Your task to perform on an android device: Do I have any events this weekend? Image 0: 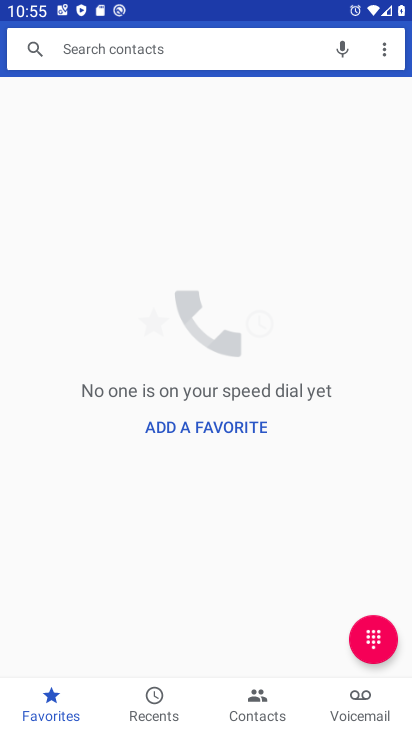
Step 0: press home button
Your task to perform on an android device: Do I have any events this weekend? Image 1: 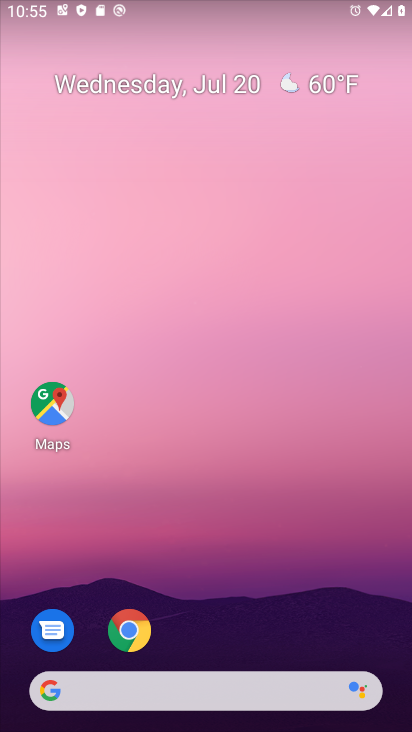
Step 1: drag from (212, 726) to (201, 125)
Your task to perform on an android device: Do I have any events this weekend? Image 2: 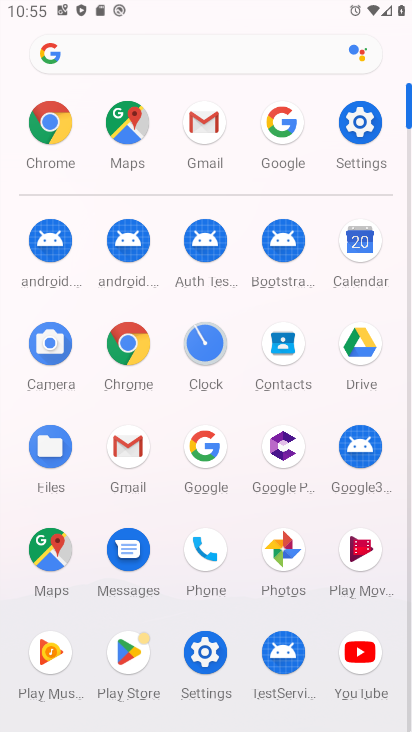
Step 2: click (360, 239)
Your task to perform on an android device: Do I have any events this weekend? Image 3: 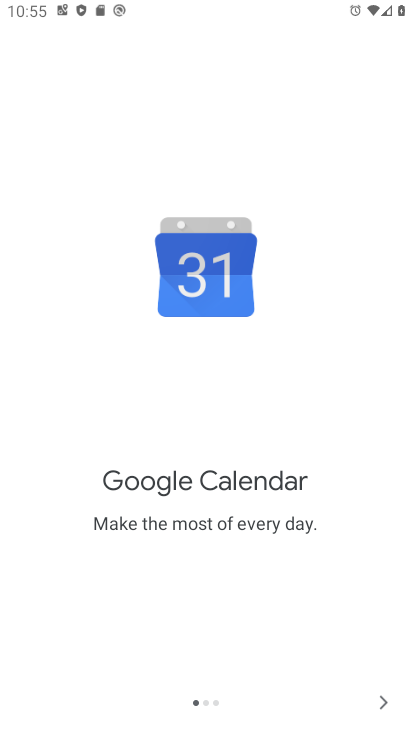
Step 3: click (386, 705)
Your task to perform on an android device: Do I have any events this weekend? Image 4: 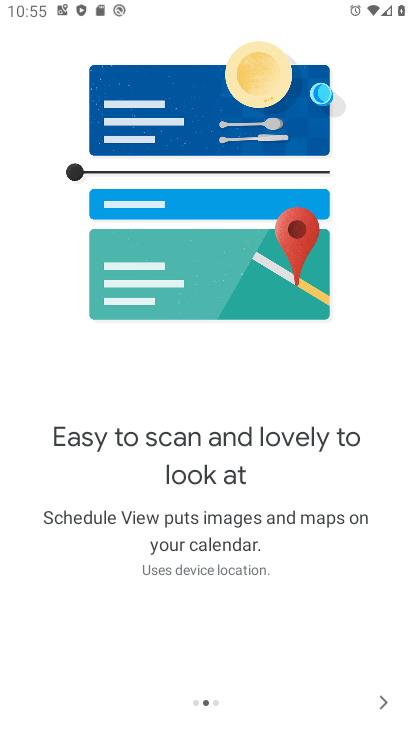
Step 4: click (381, 699)
Your task to perform on an android device: Do I have any events this weekend? Image 5: 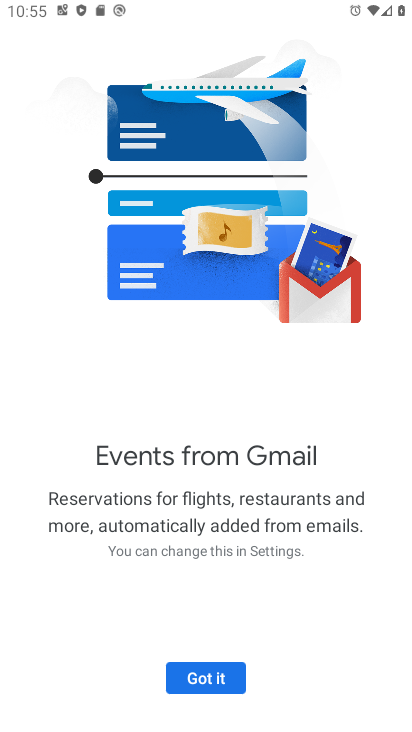
Step 5: click (213, 680)
Your task to perform on an android device: Do I have any events this weekend? Image 6: 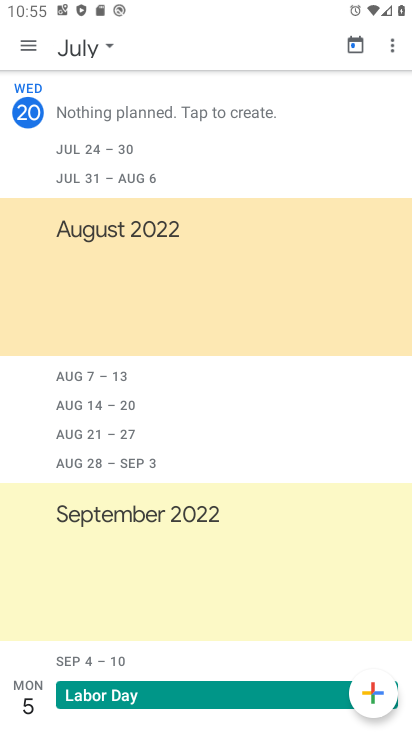
Step 6: click (32, 45)
Your task to perform on an android device: Do I have any events this weekend? Image 7: 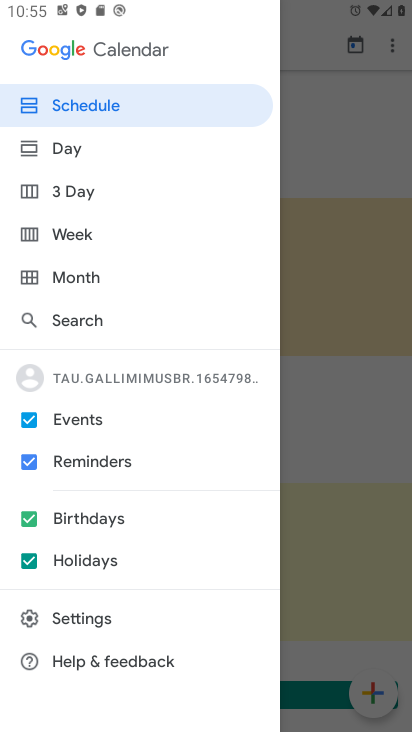
Step 7: click (34, 565)
Your task to perform on an android device: Do I have any events this weekend? Image 8: 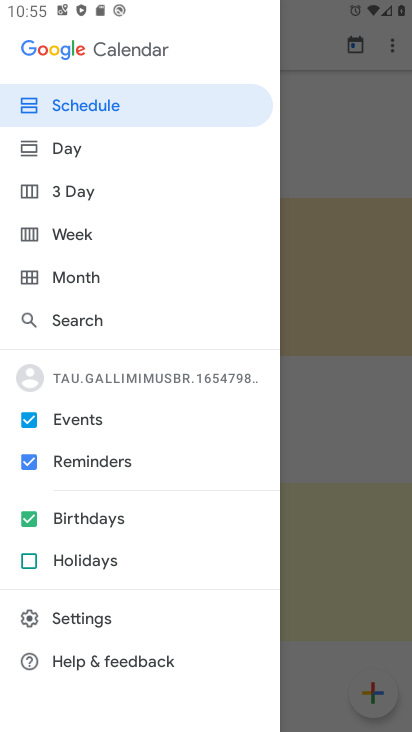
Step 8: click (23, 517)
Your task to perform on an android device: Do I have any events this weekend? Image 9: 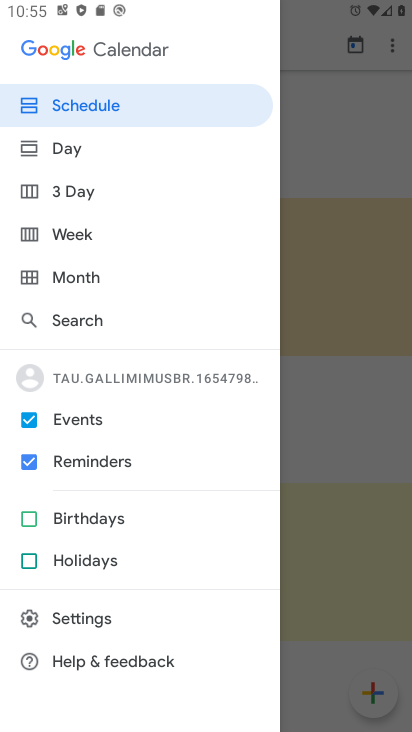
Step 9: click (35, 457)
Your task to perform on an android device: Do I have any events this weekend? Image 10: 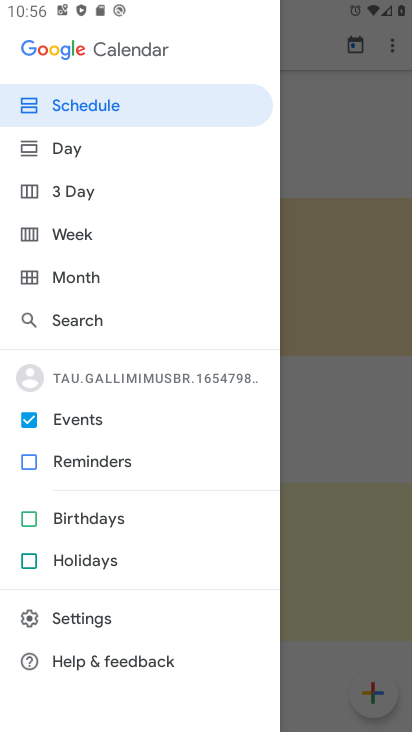
Step 10: click (76, 233)
Your task to perform on an android device: Do I have any events this weekend? Image 11: 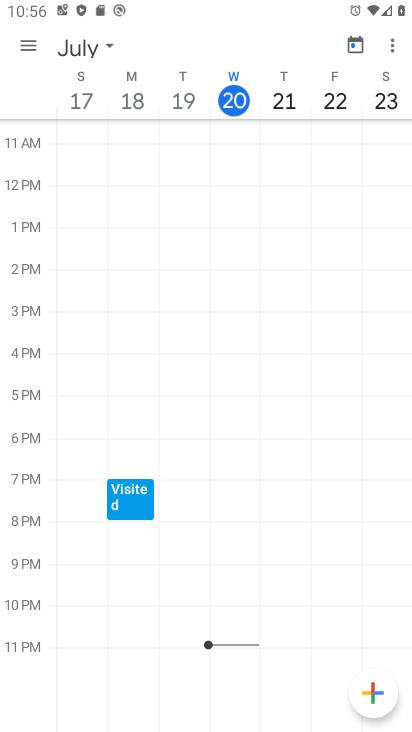
Step 11: click (382, 94)
Your task to perform on an android device: Do I have any events this weekend? Image 12: 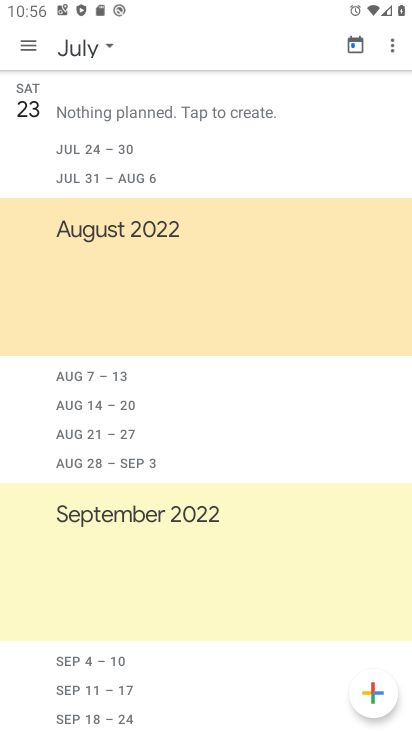
Step 12: task complete